Your task to perform on an android device: Go to Yahoo.com Image 0: 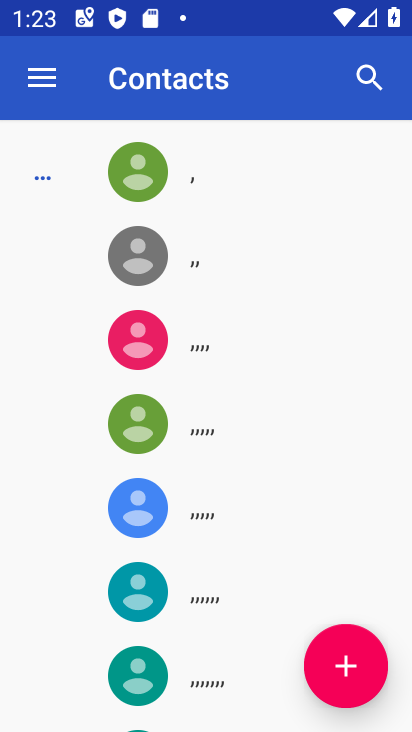
Step 0: press home button
Your task to perform on an android device: Go to Yahoo.com Image 1: 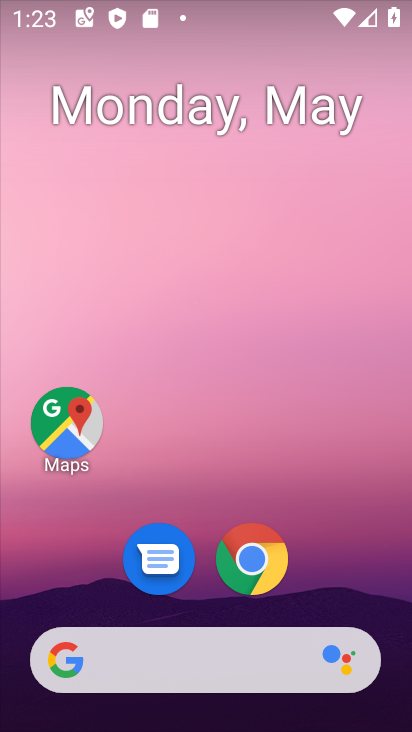
Step 1: click (236, 640)
Your task to perform on an android device: Go to Yahoo.com Image 2: 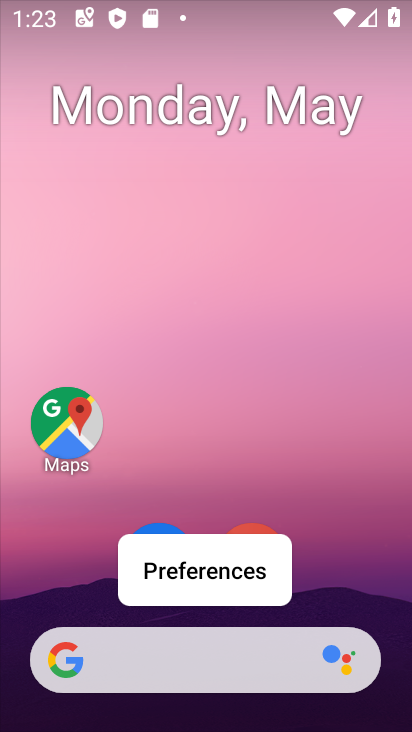
Step 2: click (263, 659)
Your task to perform on an android device: Go to Yahoo.com Image 3: 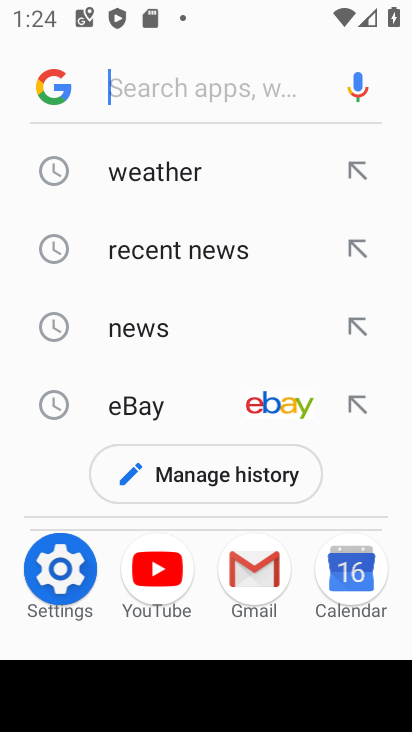
Step 3: type "yahoo.com"
Your task to perform on an android device: Go to Yahoo.com Image 4: 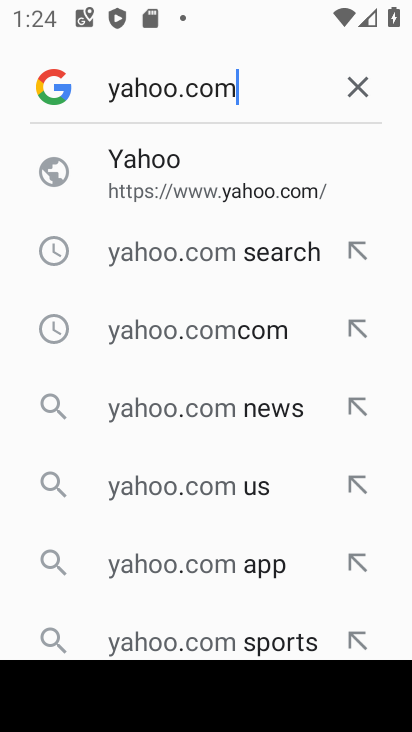
Step 4: click (170, 151)
Your task to perform on an android device: Go to Yahoo.com Image 5: 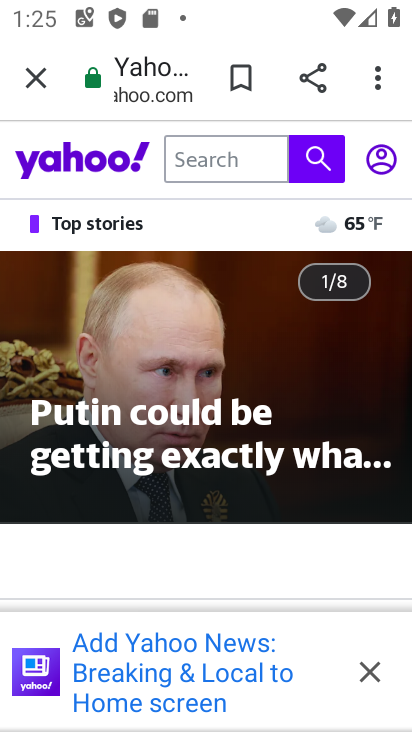
Step 5: task complete